Your task to perform on an android device: Go to Yahoo.com Image 0: 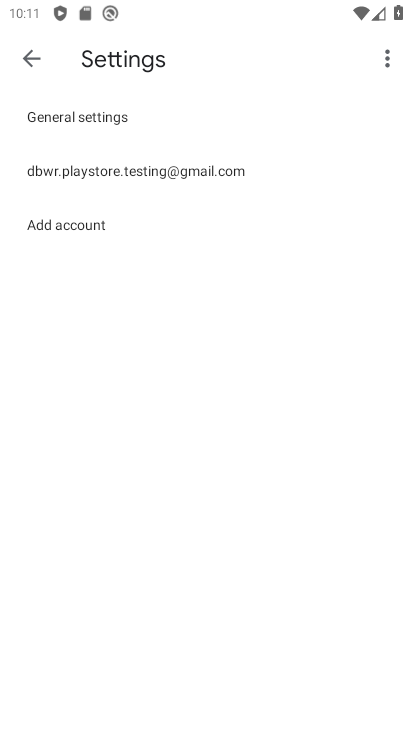
Step 0: press home button
Your task to perform on an android device: Go to Yahoo.com Image 1: 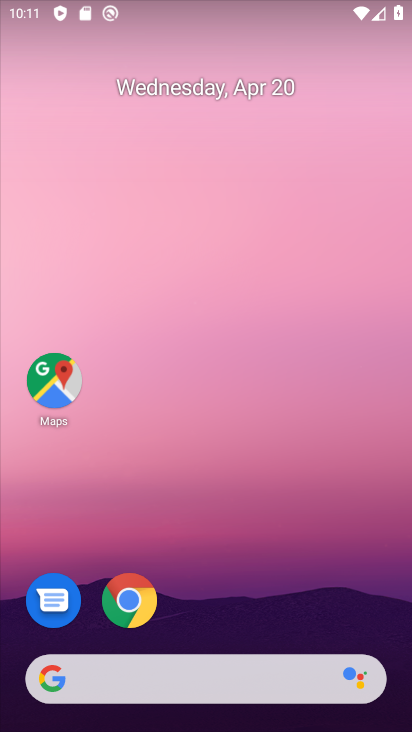
Step 1: click (262, 680)
Your task to perform on an android device: Go to Yahoo.com Image 2: 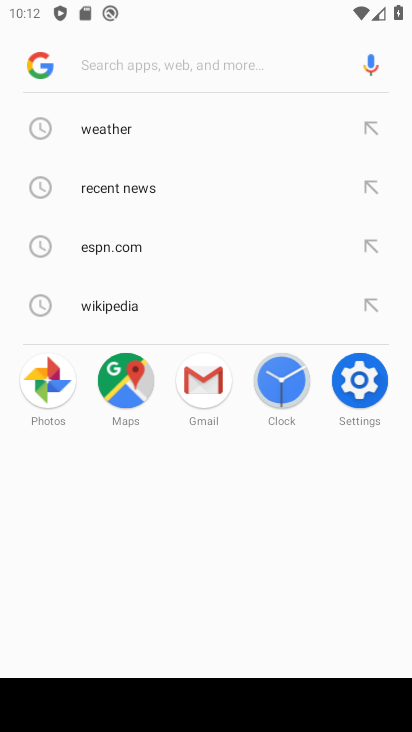
Step 2: type "yahoo.com"
Your task to perform on an android device: Go to Yahoo.com Image 3: 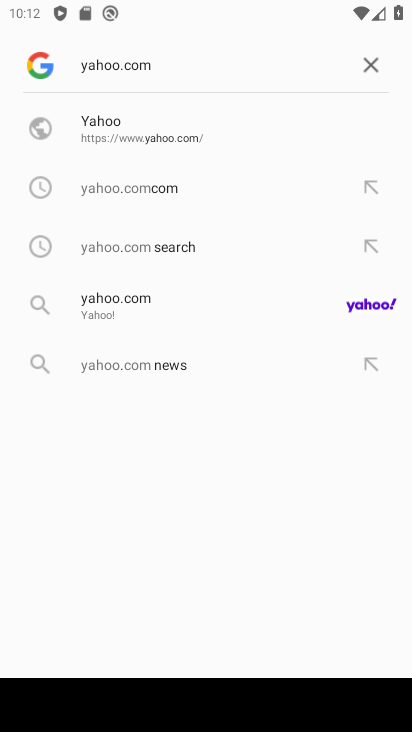
Step 3: click (292, 300)
Your task to perform on an android device: Go to Yahoo.com Image 4: 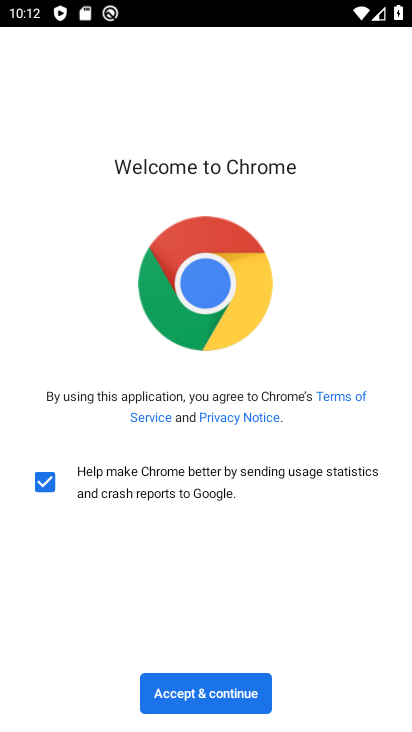
Step 4: click (234, 686)
Your task to perform on an android device: Go to Yahoo.com Image 5: 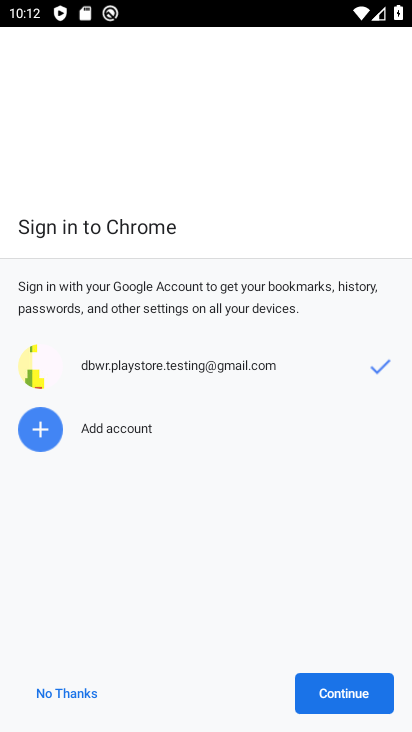
Step 5: click (331, 694)
Your task to perform on an android device: Go to Yahoo.com Image 6: 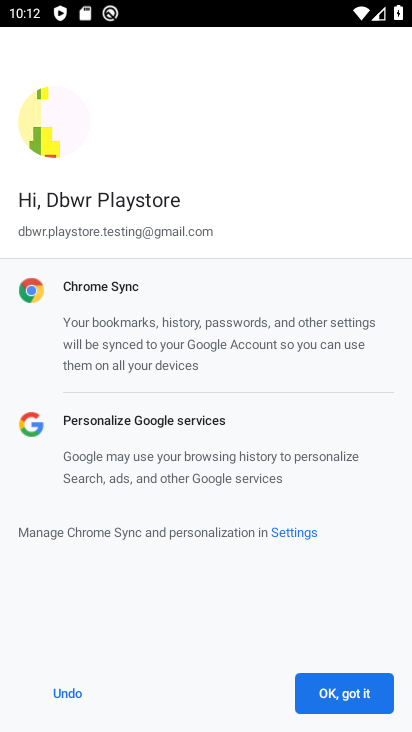
Step 6: click (331, 694)
Your task to perform on an android device: Go to Yahoo.com Image 7: 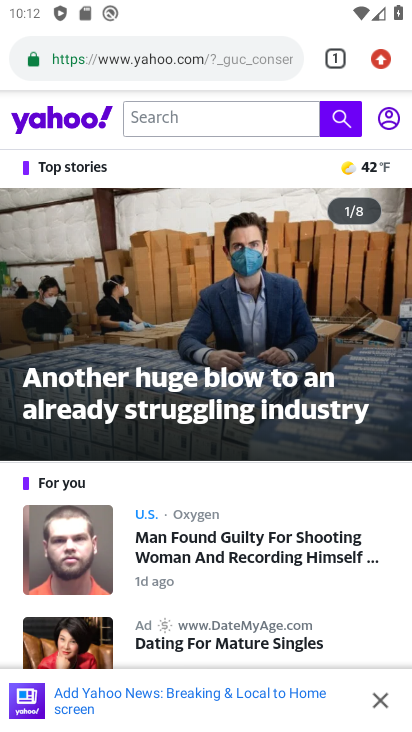
Step 7: task complete